Your task to perform on an android device: search for starred emails in the gmail app Image 0: 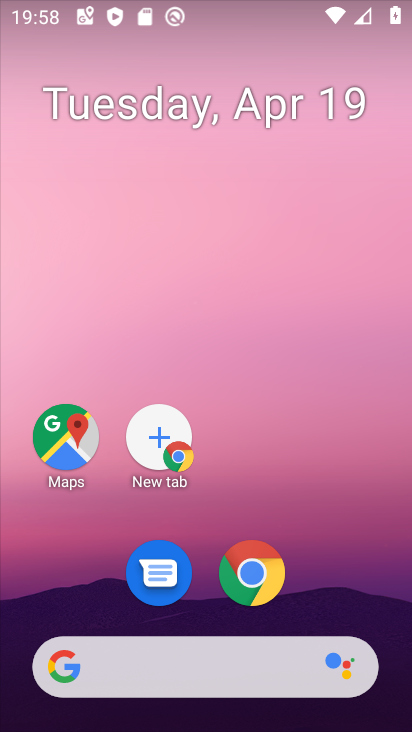
Step 0: drag from (371, 604) to (355, 156)
Your task to perform on an android device: search for starred emails in the gmail app Image 1: 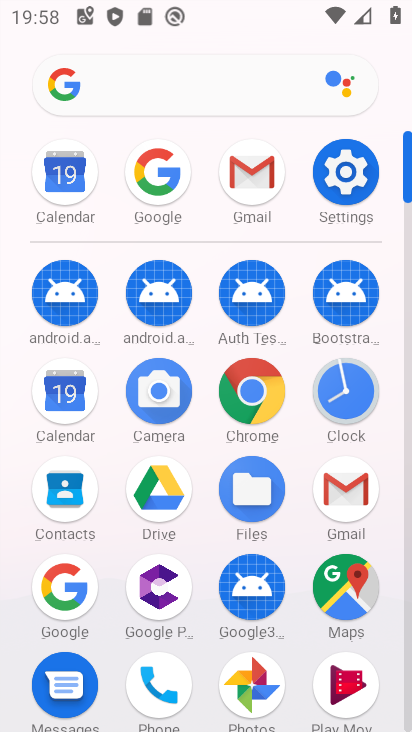
Step 1: click (354, 484)
Your task to perform on an android device: search for starred emails in the gmail app Image 2: 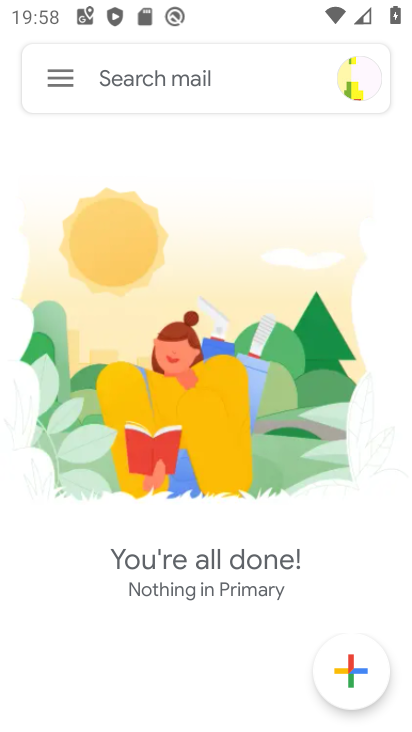
Step 2: click (60, 75)
Your task to perform on an android device: search for starred emails in the gmail app Image 3: 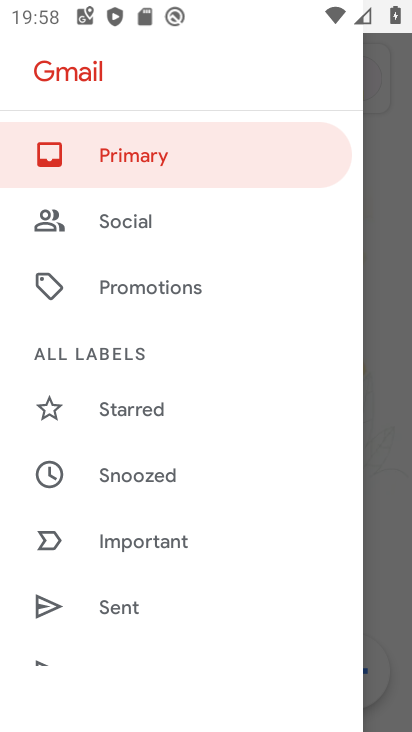
Step 3: click (116, 408)
Your task to perform on an android device: search for starred emails in the gmail app Image 4: 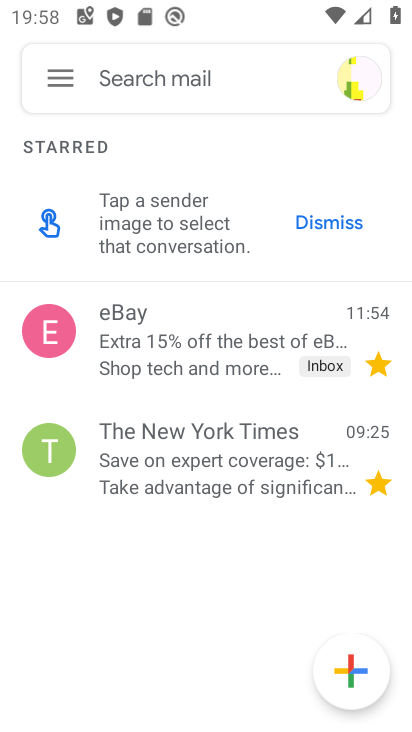
Step 4: task complete